Your task to perform on an android device: Is it going to rain this weekend? Image 0: 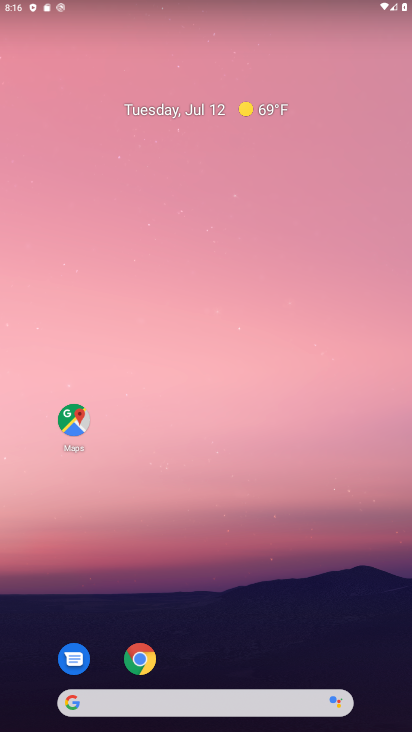
Step 0: drag from (378, 626) to (293, 209)
Your task to perform on an android device: Is it going to rain this weekend? Image 1: 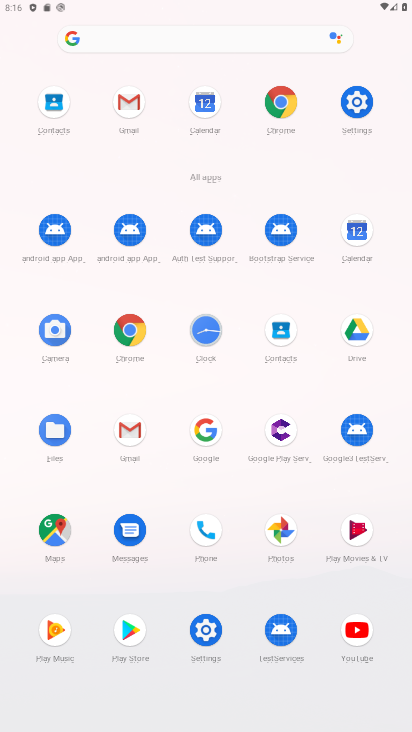
Step 1: click (283, 118)
Your task to perform on an android device: Is it going to rain this weekend? Image 2: 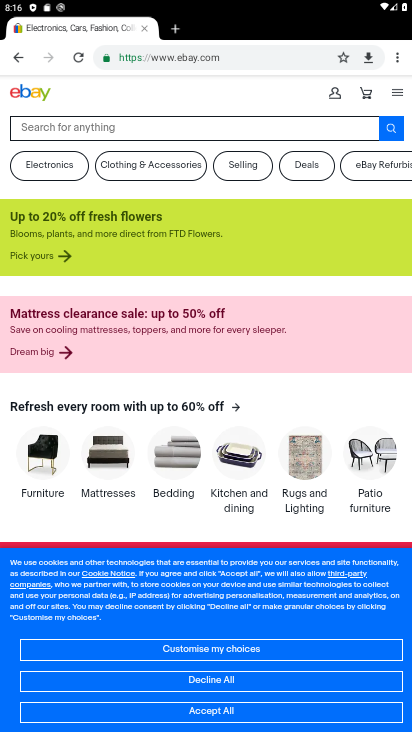
Step 2: click (277, 54)
Your task to perform on an android device: Is it going to rain this weekend? Image 3: 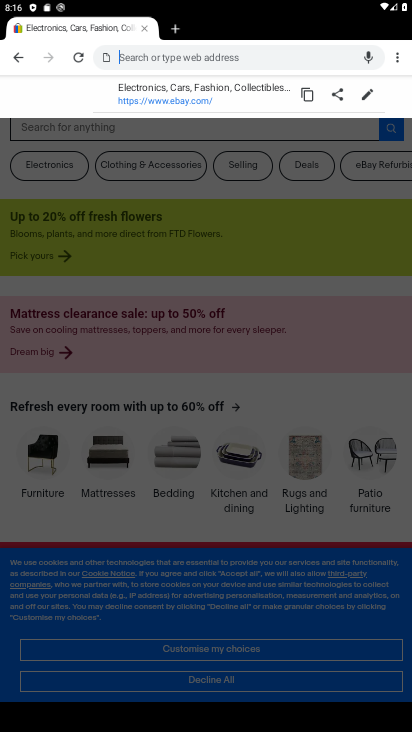
Step 3: type "Is it going to rain this weekend?"
Your task to perform on an android device: Is it going to rain this weekend? Image 4: 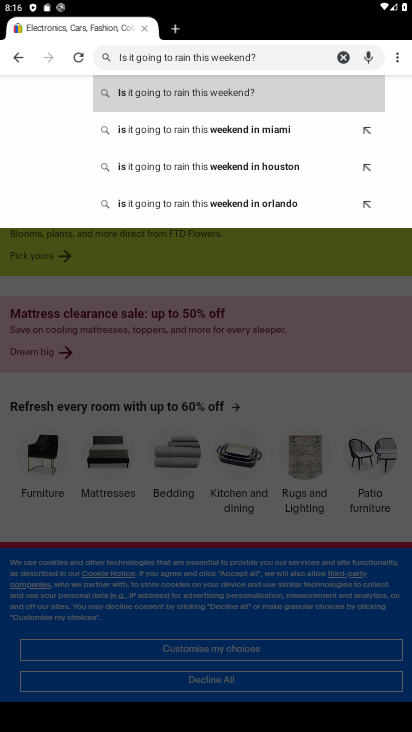
Step 4: click (158, 92)
Your task to perform on an android device: Is it going to rain this weekend? Image 5: 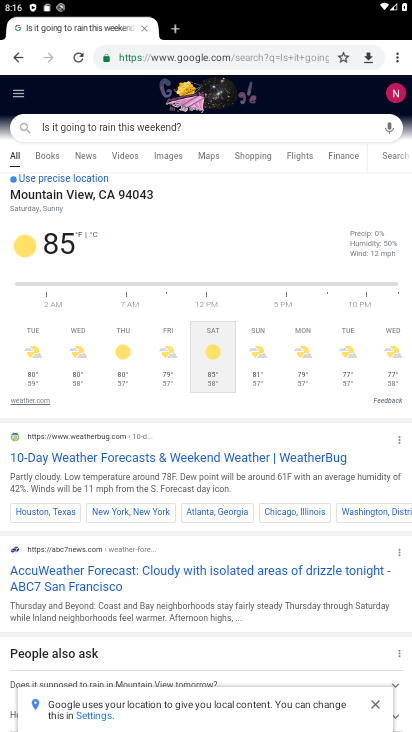
Step 5: task complete